Your task to perform on an android device: Go to Google Image 0: 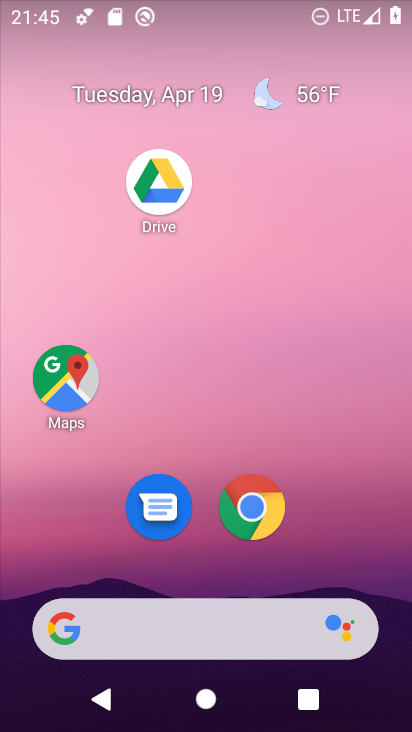
Step 0: click (179, 626)
Your task to perform on an android device: Go to Google Image 1: 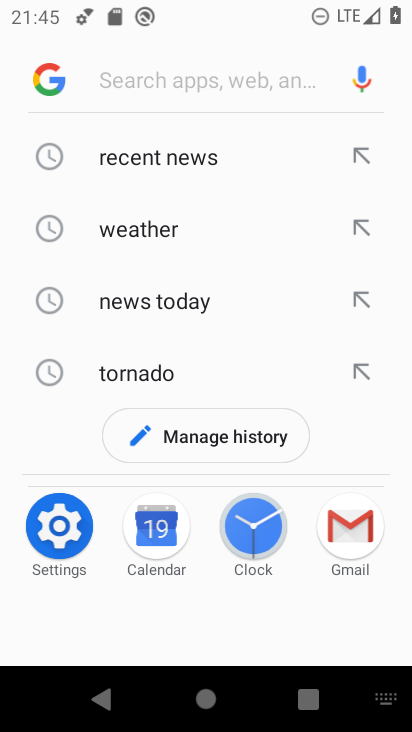
Step 1: click (46, 84)
Your task to perform on an android device: Go to Google Image 2: 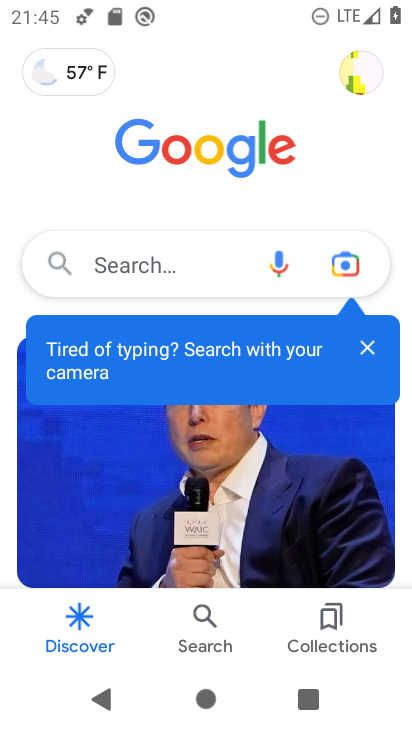
Step 2: task complete